Your task to perform on an android device: change timer sound Image 0: 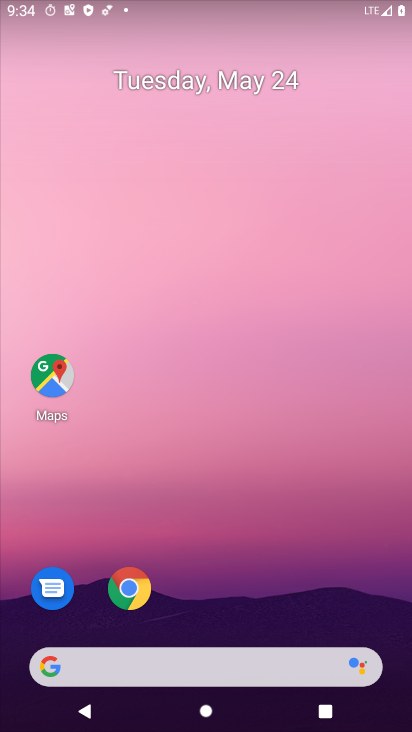
Step 0: drag from (272, 596) to (267, 80)
Your task to perform on an android device: change timer sound Image 1: 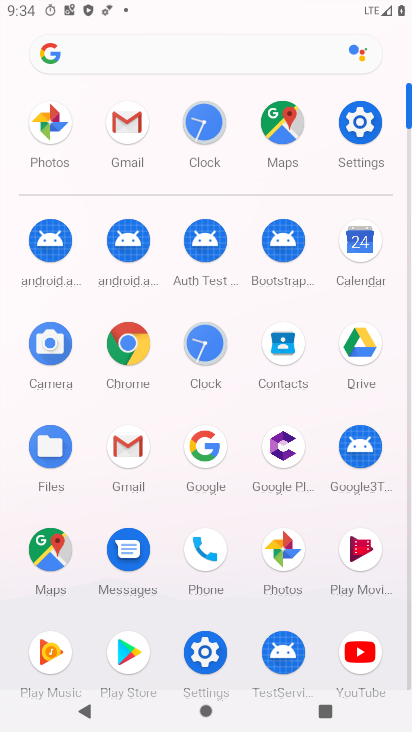
Step 1: click (204, 349)
Your task to perform on an android device: change timer sound Image 2: 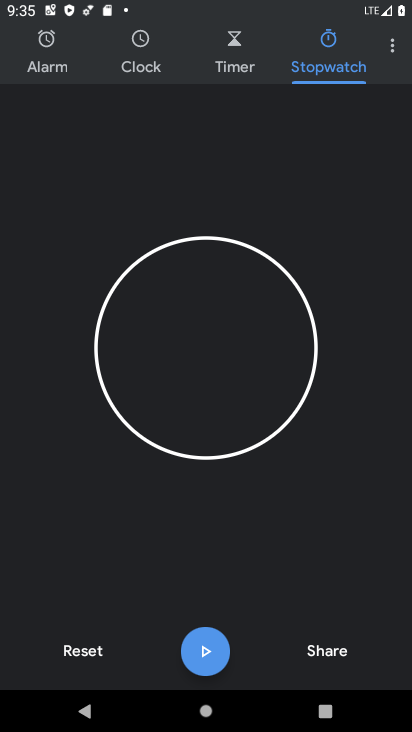
Step 2: click (392, 49)
Your task to perform on an android device: change timer sound Image 3: 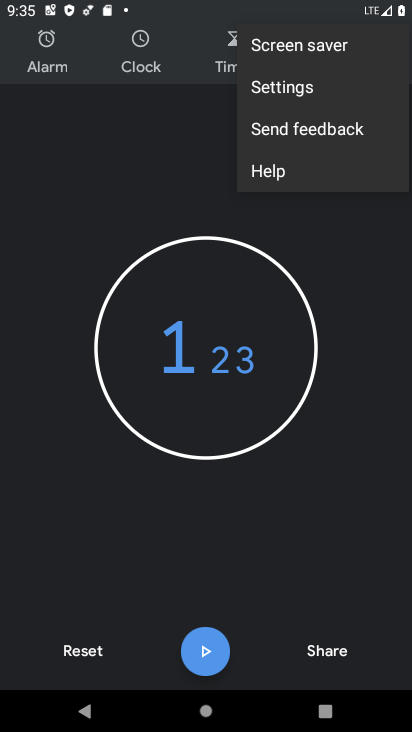
Step 3: click (321, 82)
Your task to perform on an android device: change timer sound Image 4: 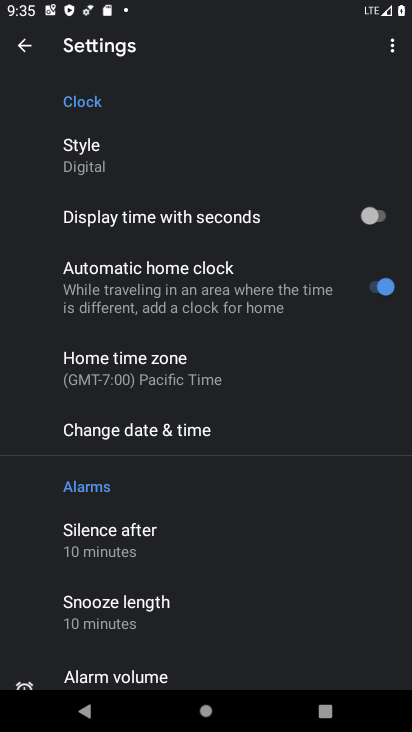
Step 4: drag from (163, 598) to (234, 113)
Your task to perform on an android device: change timer sound Image 5: 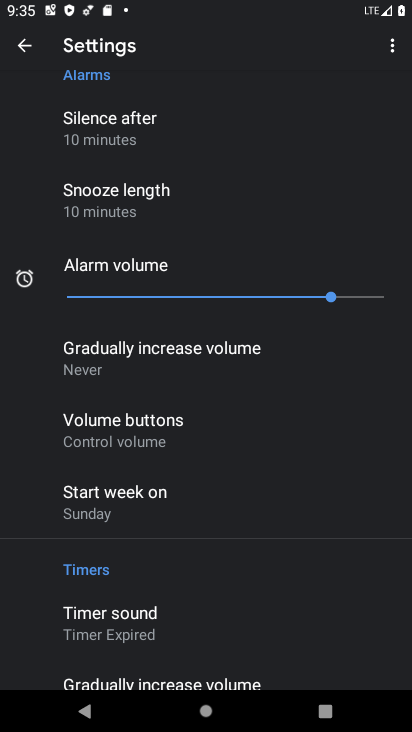
Step 5: click (133, 626)
Your task to perform on an android device: change timer sound Image 6: 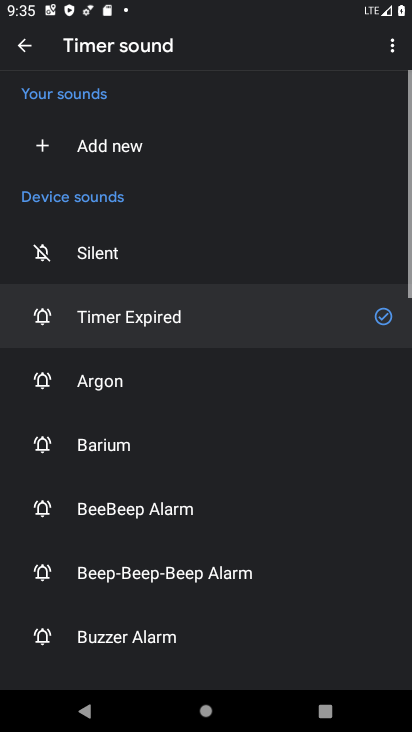
Step 6: click (98, 385)
Your task to perform on an android device: change timer sound Image 7: 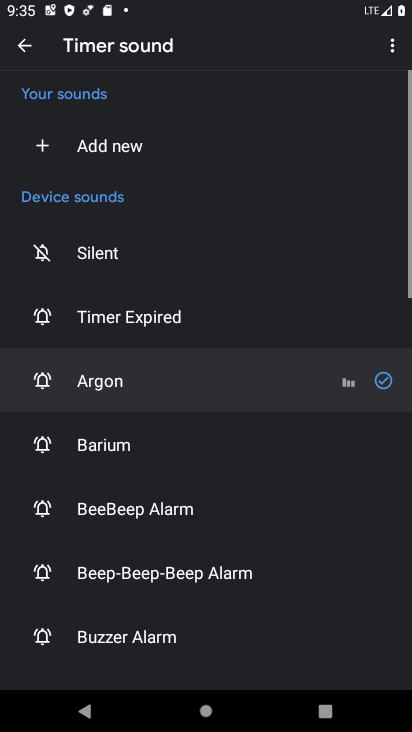
Step 7: task complete